Your task to perform on an android device: clear history in the chrome app Image 0: 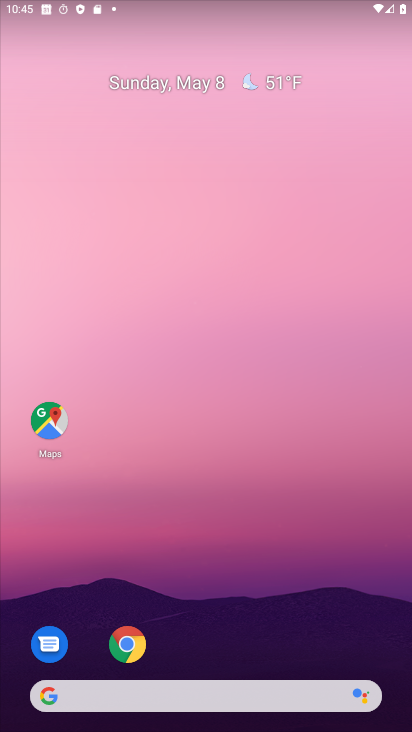
Step 0: drag from (241, 684) to (181, 2)
Your task to perform on an android device: clear history in the chrome app Image 1: 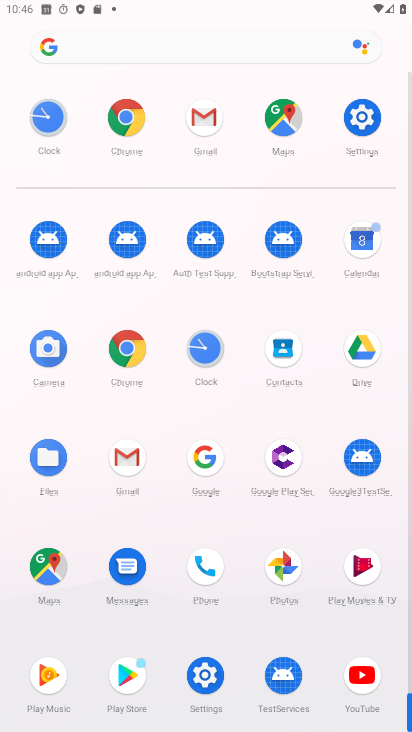
Step 1: click (131, 351)
Your task to perform on an android device: clear history in the chrome app Image 2: 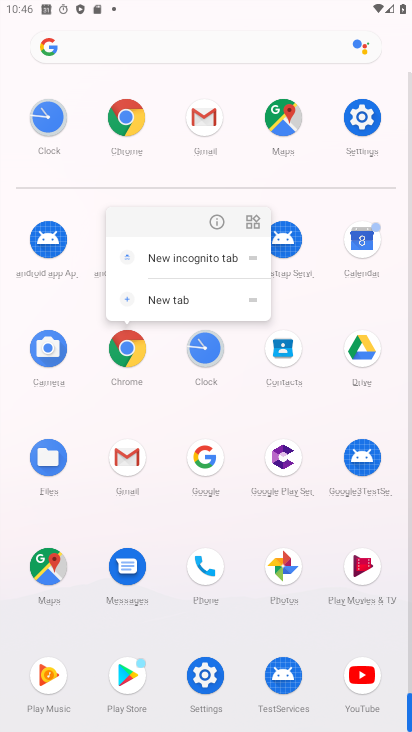
Step 2: click (215, 218)
Your task to perform on an android device: clear history in the chrome app Image 3: 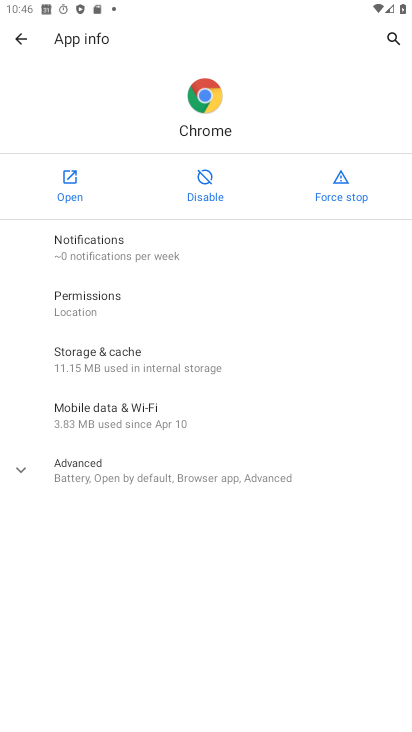
Step 3: click (71, 169)
Your task to perform on an android device: clear history in the chrome app Image 4: 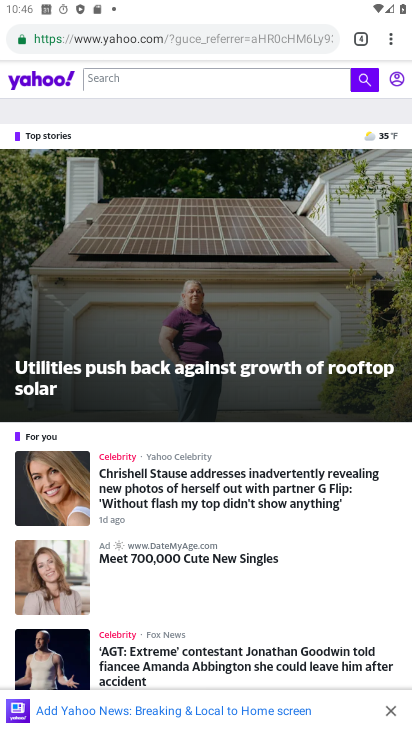
Step 4: drag from (216, 489) to (291, 126)
Your task to perform on an android device: clear history in the chrome app Image 5: 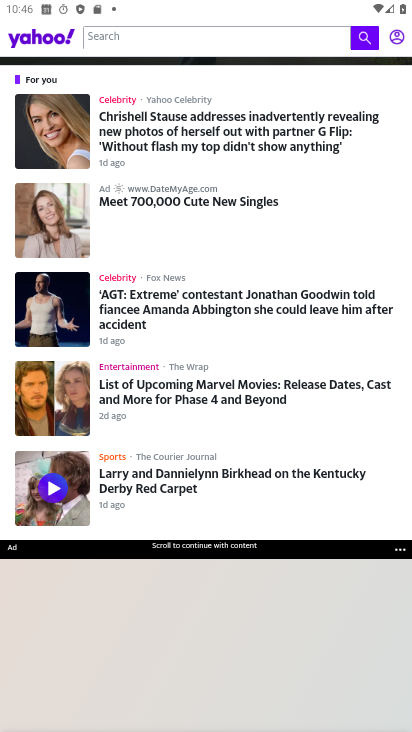
Step 5: drag from (357, 268) to (410, 106)
Your task to perform on an android device: clear history in the chrome app Image 6: 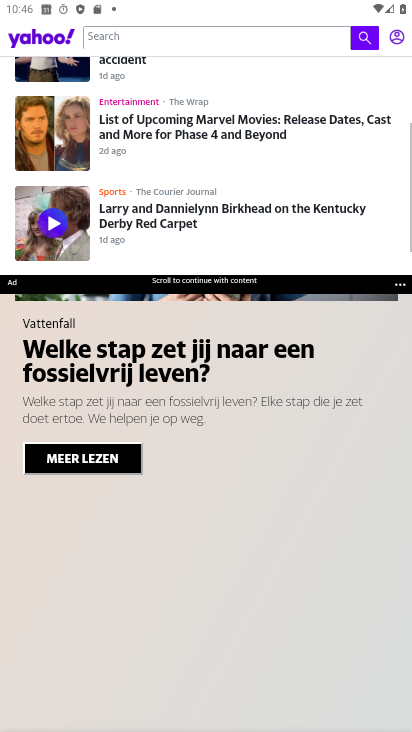
Step 6: drag from (392, 37) to (339, 308)
Your task to perform on an android device: clear history in the chrome app Image 7: 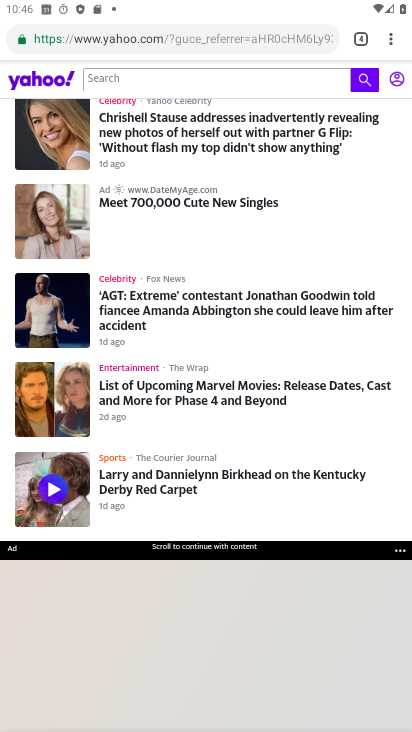
Step 7: click (391, 36)
Your task to perform on an android device: clear history in the chrome app Image 8: 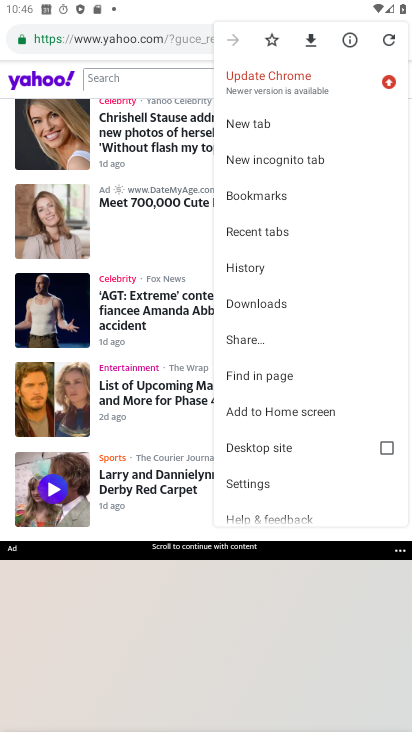
Step 8: click (271, 261)
Your task to perform on an android device: clear history in the chrome app Image 9: 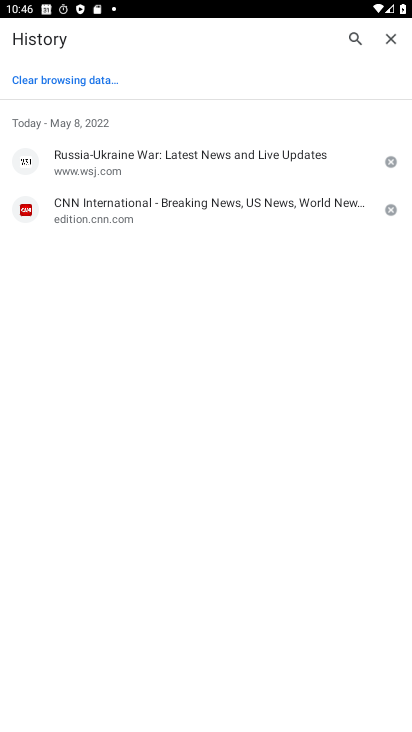
Step 9: click (37, 87)
Your task to perform on an android device: clear history in the chrome app Image 10: 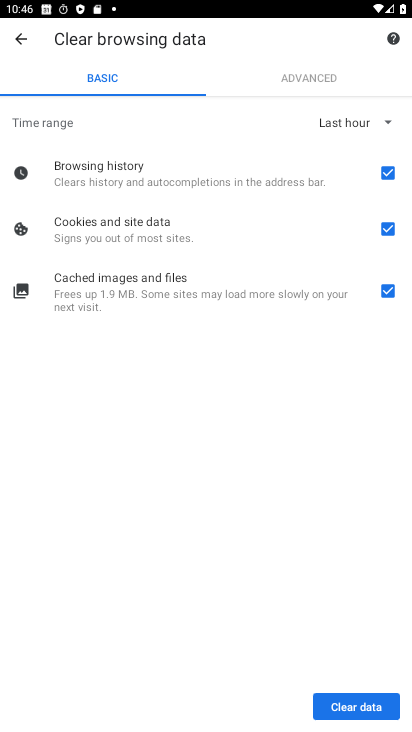
Step 10: click (337, 710)
Your task to perform on an android device: clear history in the chrome app Image 11: 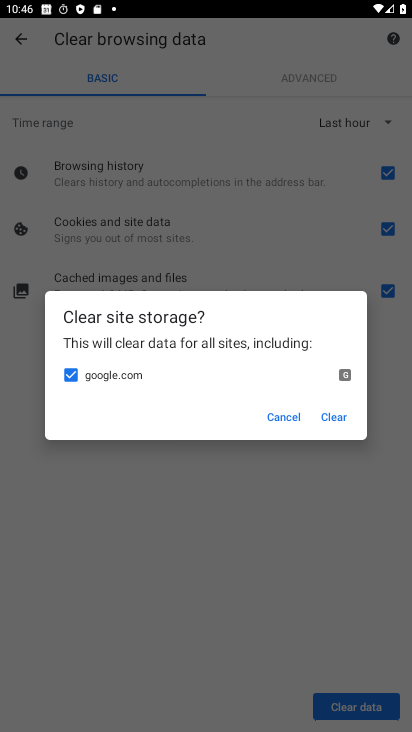
Step 11: click (336, 417)
Your task to perform on an android device: clear history in the chrome app Image 12: 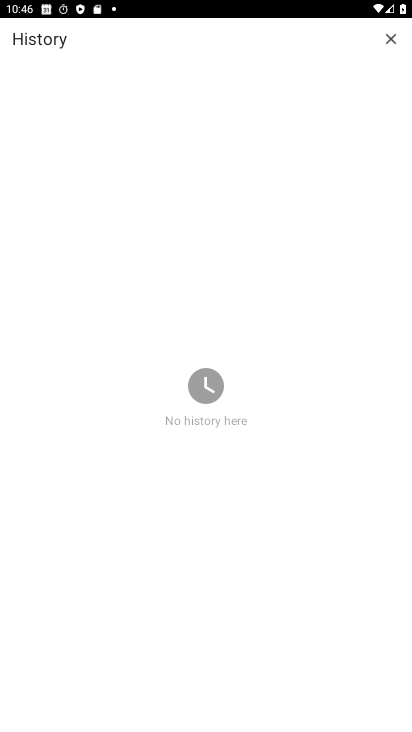
Step 12: task complete